Your task to perform on an android device: Open accessibility settings Image 0: 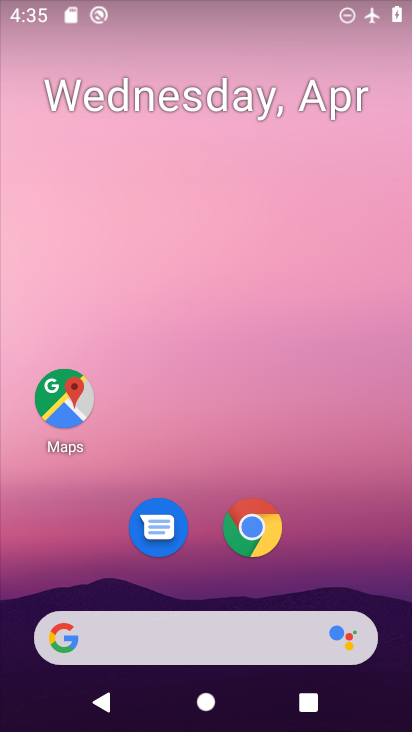
Step 0: drag from (365, 598) to (337, 4)
Your task to perform on an android device: Open accessibility settings Image 1: 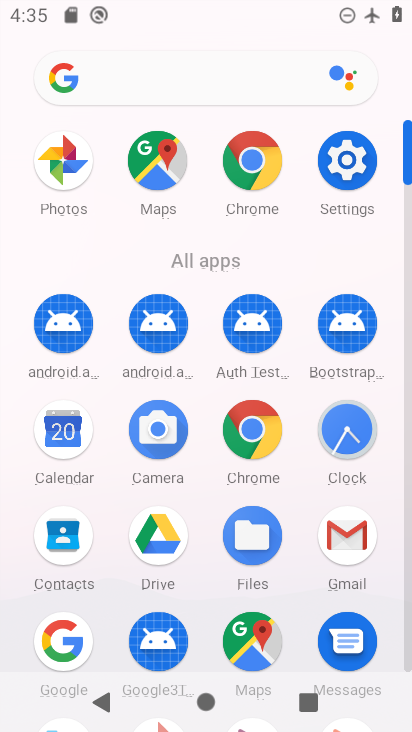
Step 1: click (342, 157)
Your task to perform on an android device: Open accessibility settings Image 2: 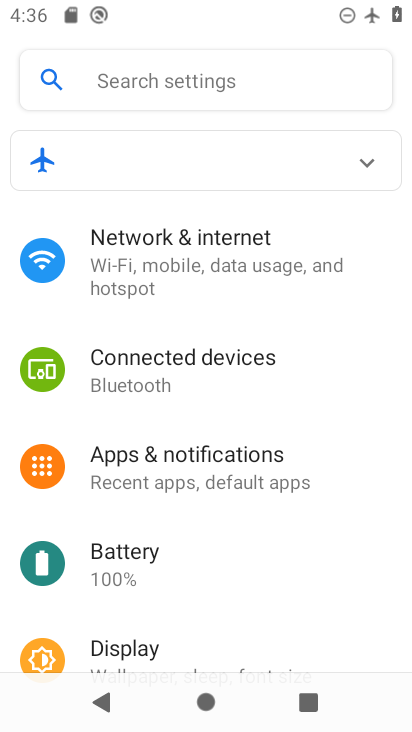
Step 2: drag from (320, 610) to (282, 33)
Your task to perform on an android device: Open accessibility settings Image 3: 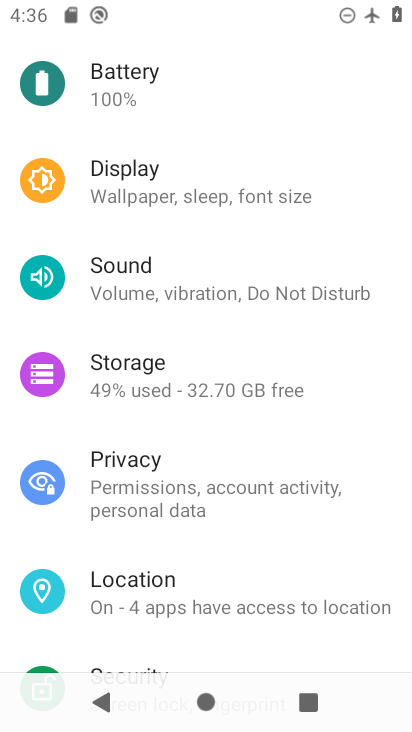
Step 3: drag from (270, 568) to (185, 41)
Your task to perform on an android device: Open accessibility settings Image 4: 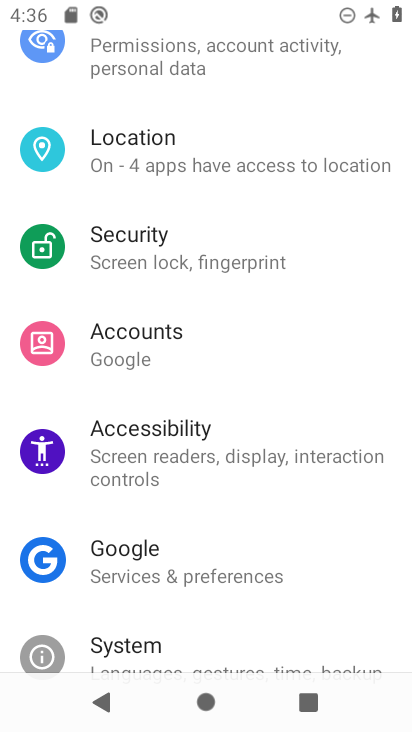
Step 4: click (146, 456)
Your task to perform on an android device: Open accessibility settings Image 5: 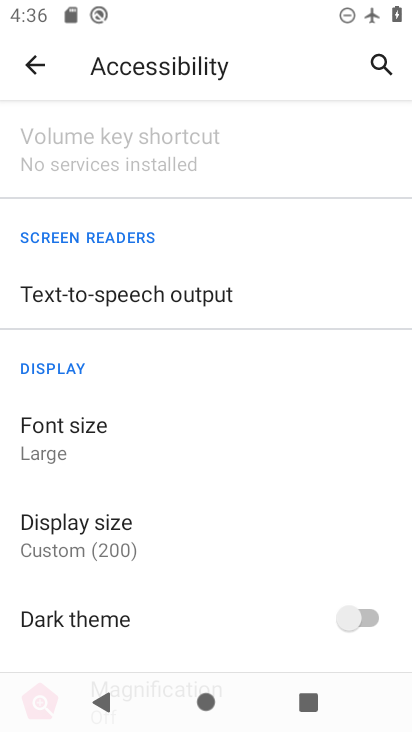
Step 5: task complete